Your task to perform on an android device: Go to Reddit.com Image 0: 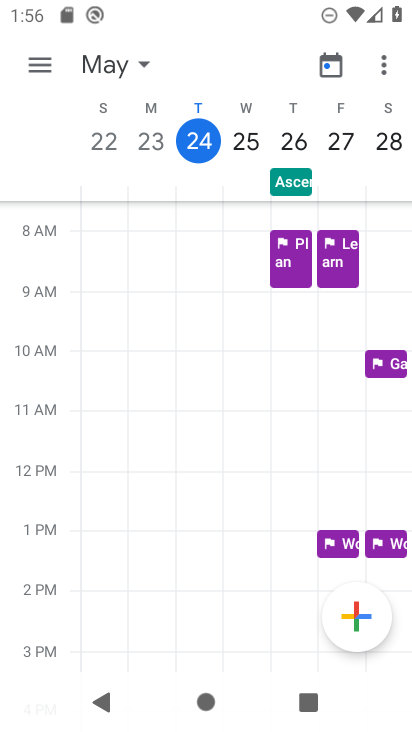
Step 0: press home button
Your task to perform on an android device: Go to Reddit.com Image 1: 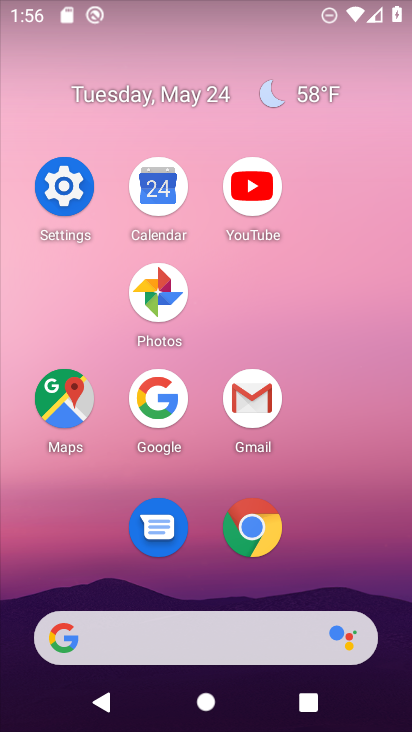
Step 1: click (263, 541)
Your task to perform on an android device: Go to Reddit.com Image 2: 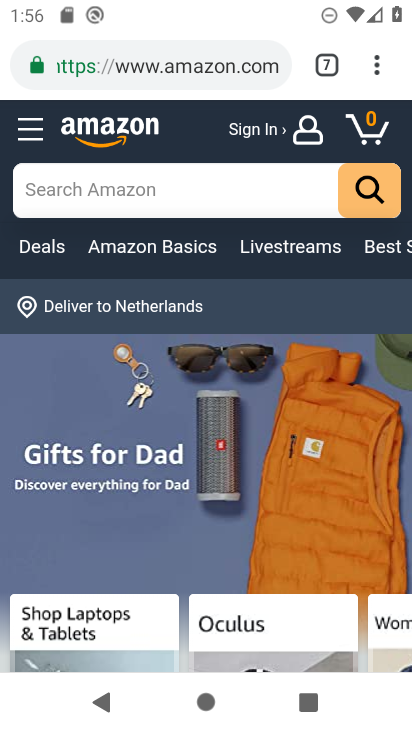
Step 2: click (318, 56)
Your task to perform on an android device: Go to Reddit.com Image 3: 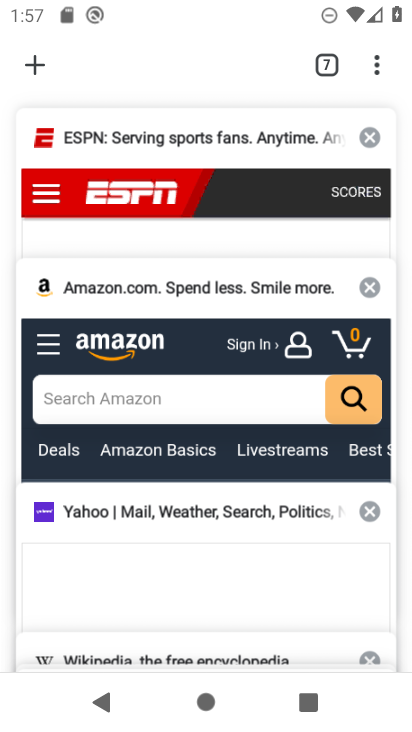
Step 3: drag from (217, 457) to (237, 157)
Your task to perform on an android device: Go to Reddit.com Image 4: 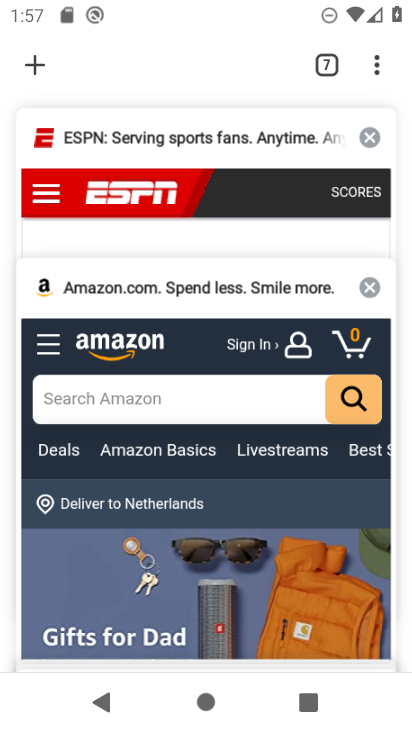
Step 4: drag from (214, 554) to (221, 133)
Your task to perform on an android device: Go to Reddit.com Image 5: 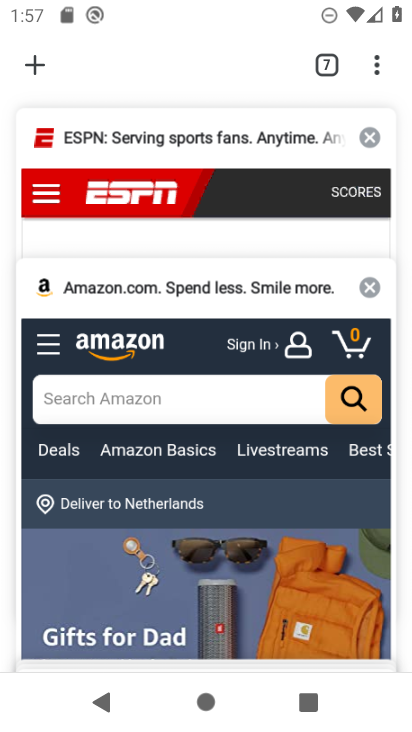
Step 5: drag from (236, 254) to (265, 549)
Your task to perform on an android device: Go to Reddit.com Image 6: 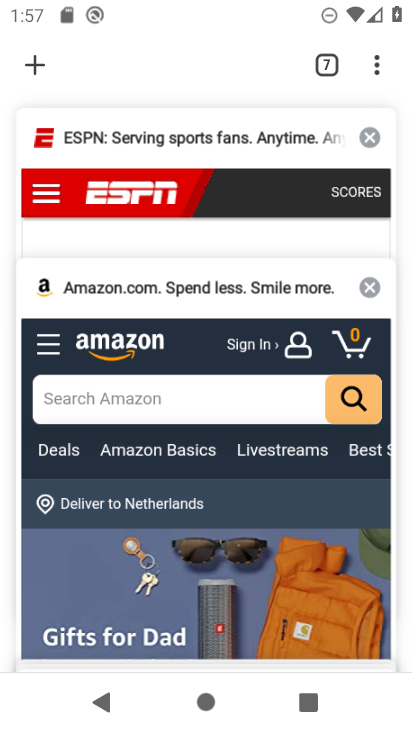
Step 6: drag from (167, 173) to (207, 478)
Your task to perform on an android device: Go to Reddit.com Image 7: 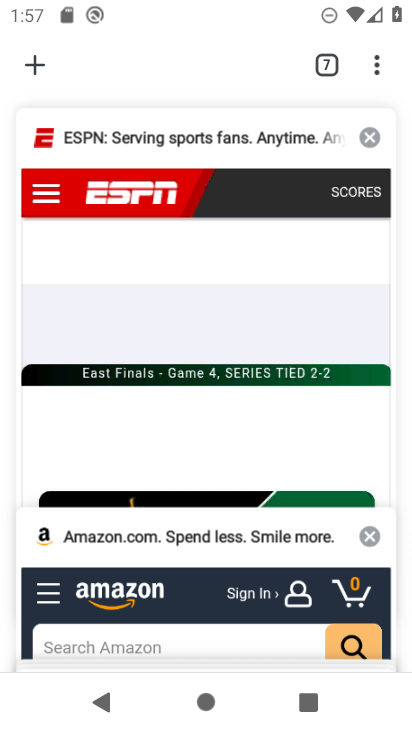
Step 7: drag from (215, 128) to (247, 446)
Your task to perform on an android device: Go to Reddit.com Image 8: 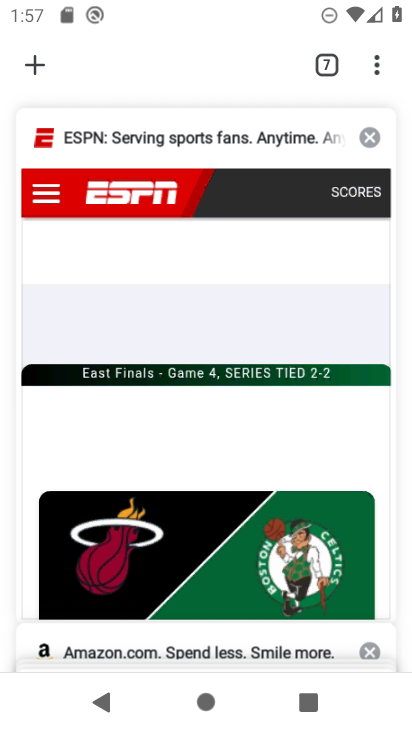
Step 8: drag from (154, 73) to (183, 429)
Your task to perform on an android device: Go to Reddit.com Image 9: 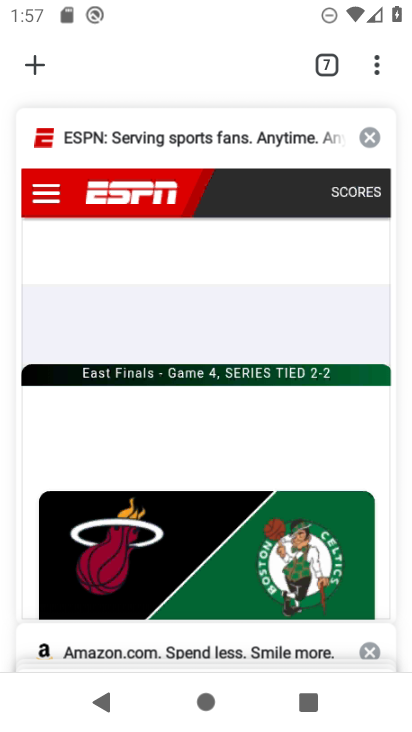
Step 9: click (37, 79)
Your task to perform on an android device: Go to Reddit.com Image 10: 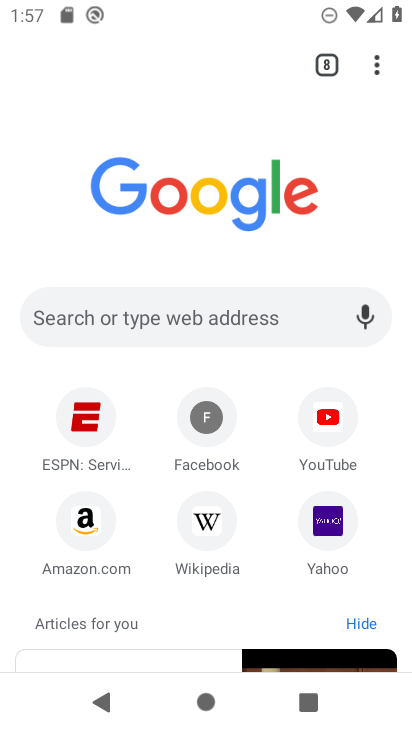
Step 10: click (137, 318)
Your task to perform on an android device: Go to Reddit.com Image 11: 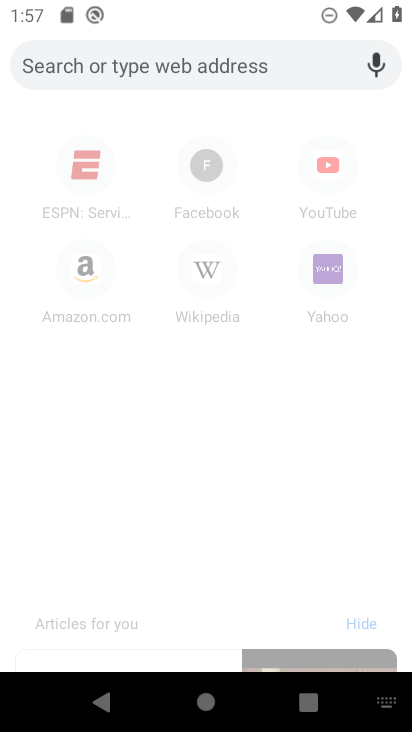
Step 11: type "reddit"
Your task to perform on an android device: Go to Reddit.com Image 12: 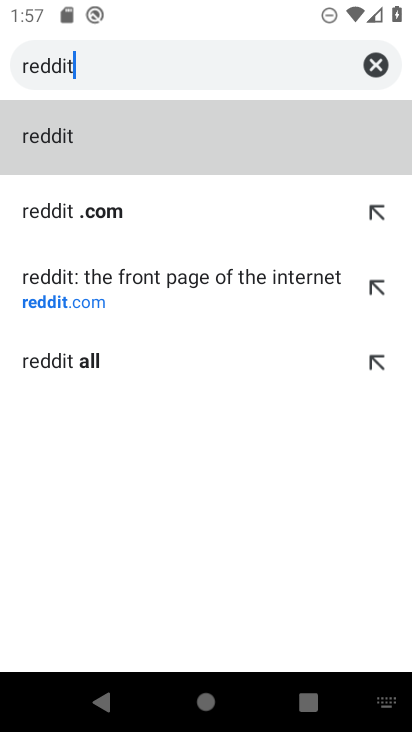
Step 12: click (109, 275)
Your task to perform on an android device: Go to Reddit.com Image 13: 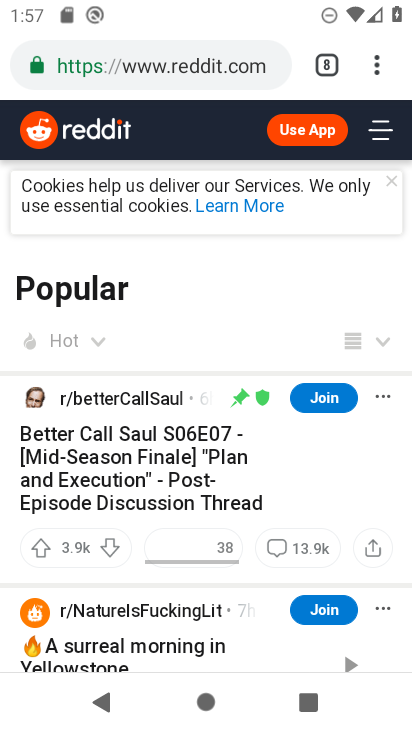
Step 13: task complete